Your task to perform on an android device: turn on sleep mode Image 0: 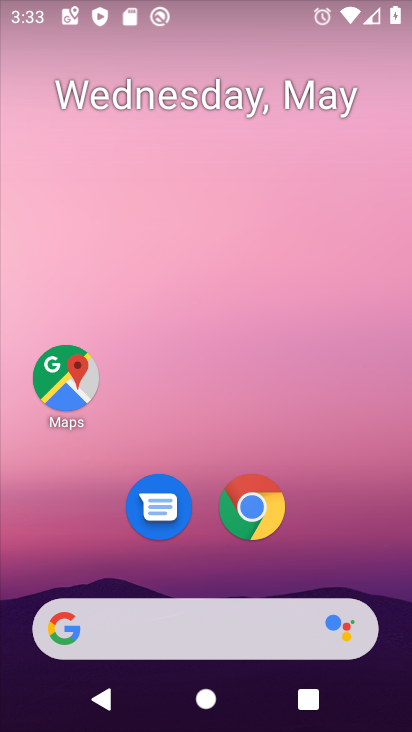
Step 0: drag from (219, 558) to (232, 112)
Your task to perform on an android device: turn on sleep mode Image 1: 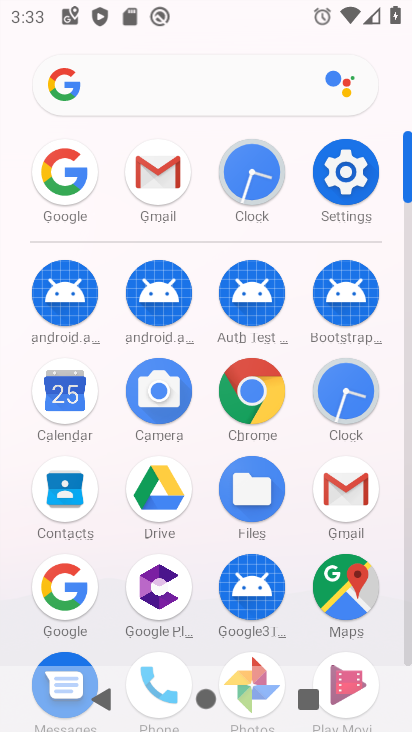
Step 1: click (341, 167)
Your task to perform on an android device: turn on sleep mode Image 2: 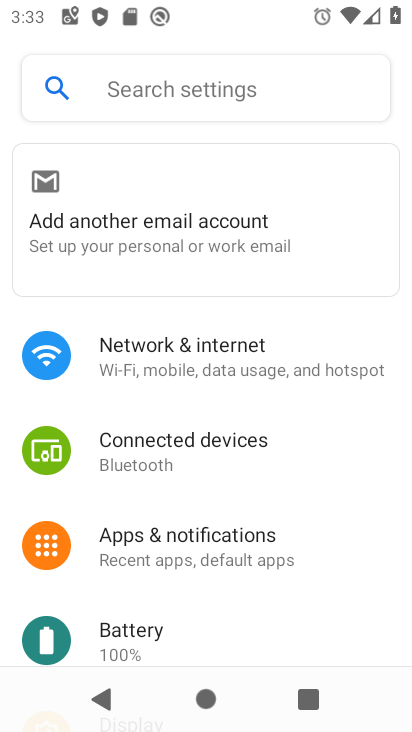
Step 2: drag from (256, 589) to (288, 206)
Your task to perform on an android device: turn on sleep mode Image 3: 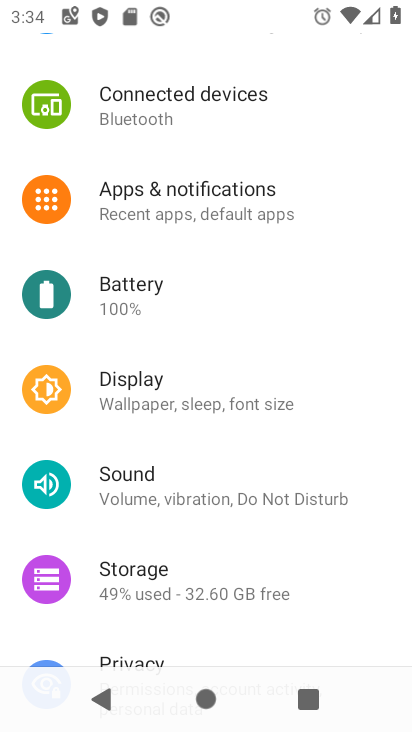
Step 3: click (174, 377)
Your task to perform on an android device: turn on sleep mode Image 4: 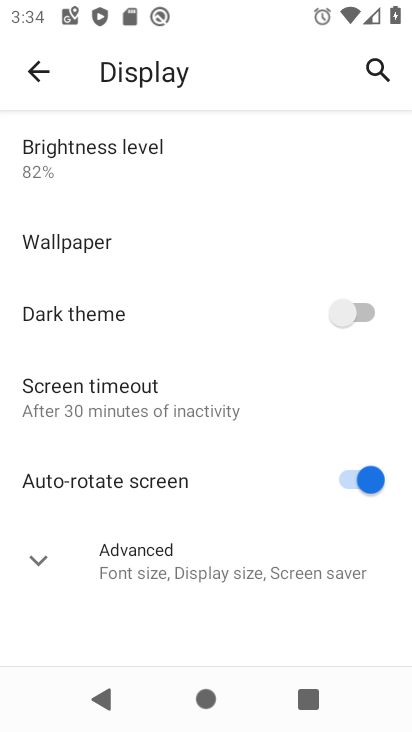
Step 4: click (154, 564)
Your task to perform on an android device: turn on sleep mode Image 5: 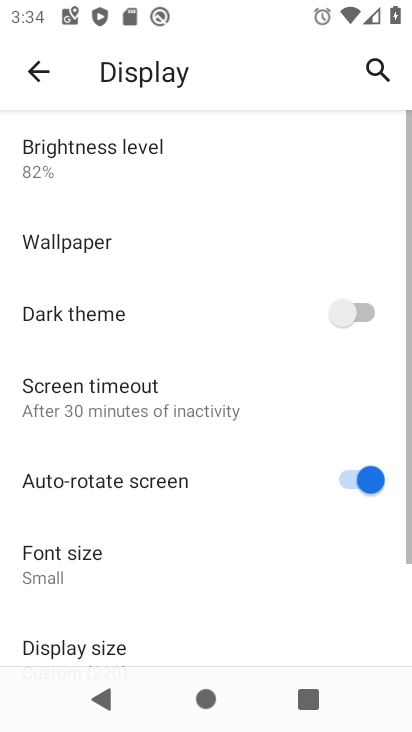
Step 5: click (123, 409)
Your task to perform on an android device: turn on sleep mode Image 6: 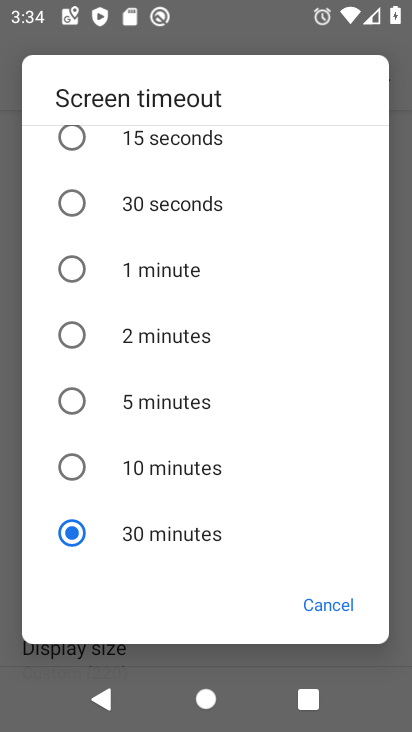
Step 6: task complete